Your task to perform on an android device: Search for seafood restaurants on Google Maps Image 0: 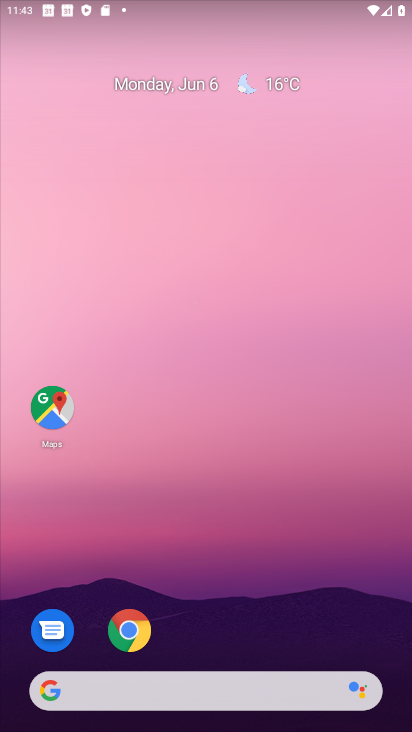
Step 0: click (46, 406)
Your task to perform on an android device: Search for seafood restaurants on Google Maps Image 1: 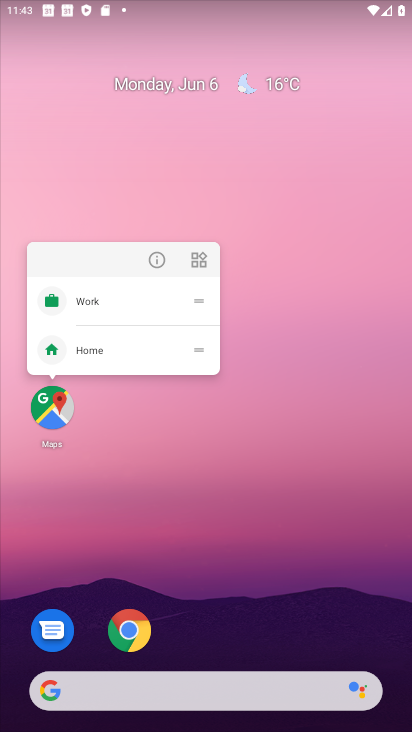
Step 1: click (54, 410)
Your task to perform on an android device: Search for seafood restaurants on Google Maps Image 2: 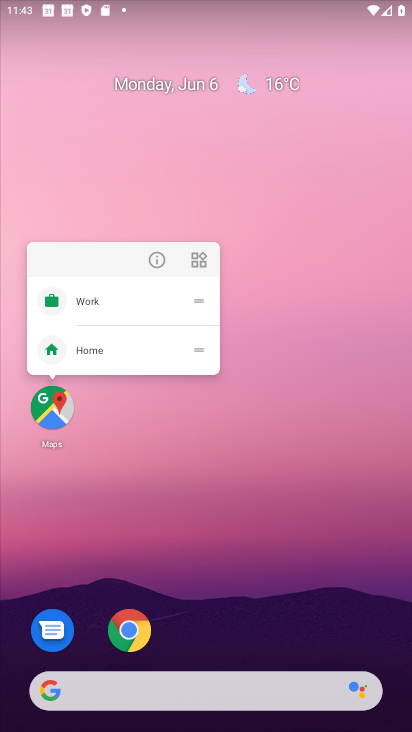
Step 2: click (54, 411)
Your task to perform on an android device: Search for seafood restaurants on Google Maps Image 3: 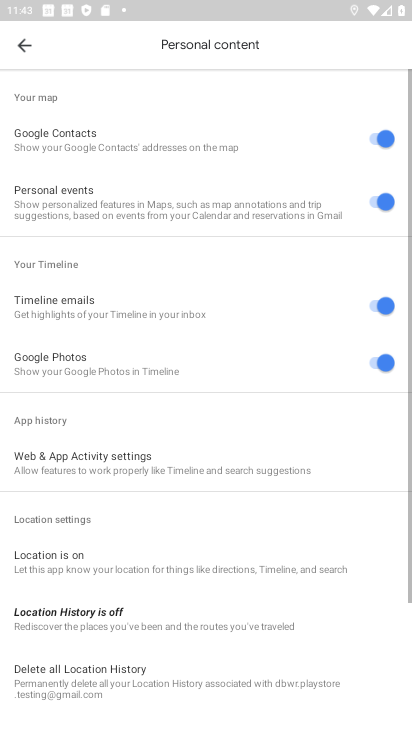
Step 3: click (23, 37)
Your task to perform on an android device: Search for seafood restaurants on Google Maps Image 4: 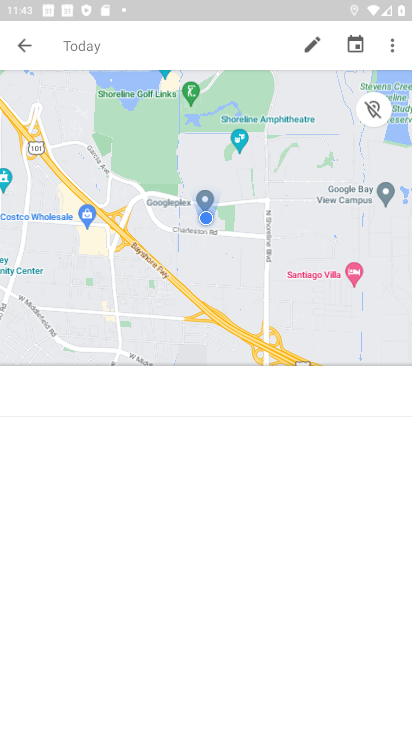
Step 4: click (22, 37)
Your task to perform on an android device: Search for seafood restaurants on Google Maps Image 5: 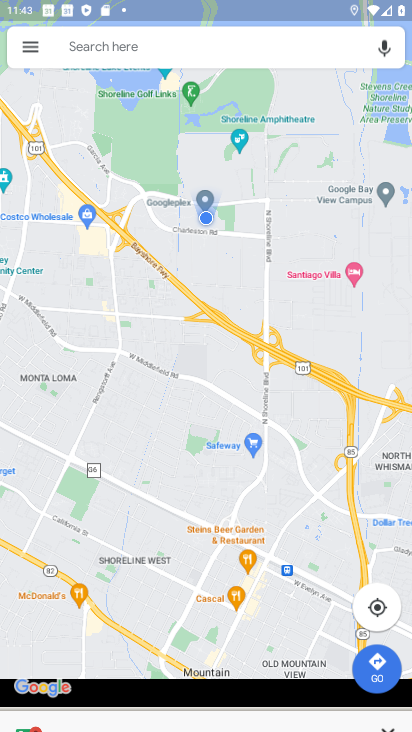
Step 5: click (81, 40)
Your task to perform on an android device: Search for seafood restaurants on Google Maps Image 6: 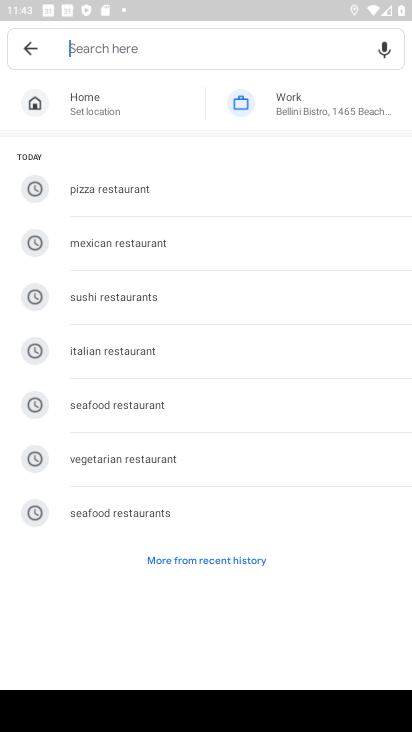
Step 6: click (154, 403)
Your task to perform on an android device: Search for seafood restaurants on Google Maps Image 7: 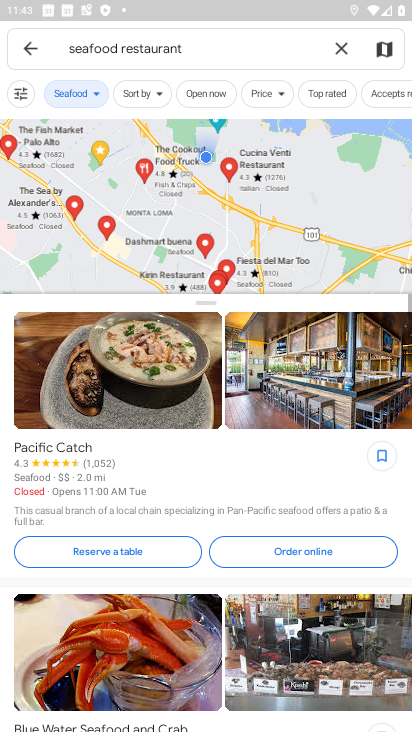
Step 7: task complete